Your task to perform on an android device: toggle notifications settings in the gmail app Image 0: 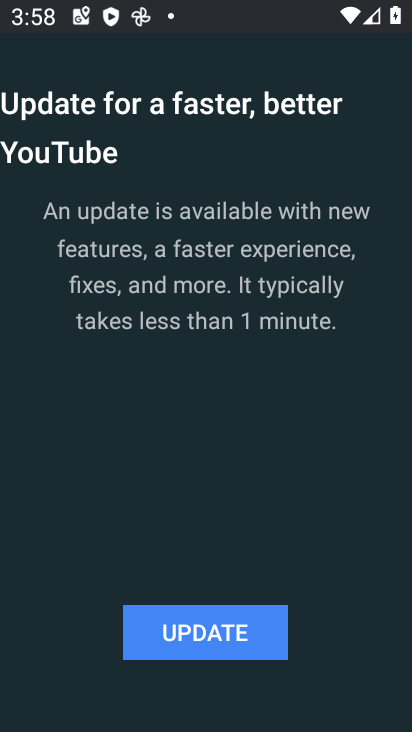
Step 0: press home button
Your task to perform on an android device: toggle notifications settings in the gmail app Image 1: 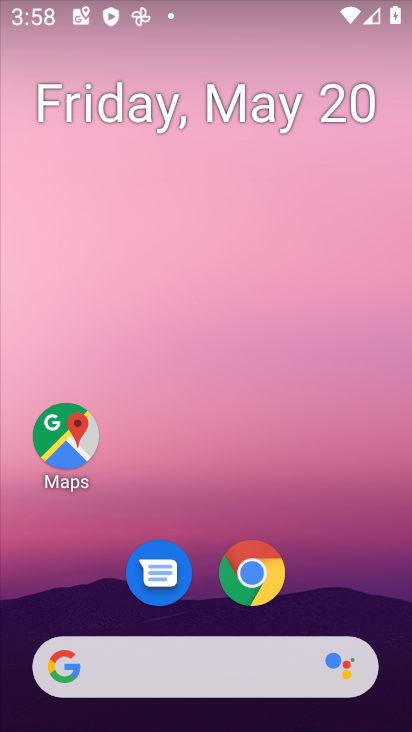
Step 1: drag from (391, 647) to (327, 253)
Your task to perform on an android device: toggle notifications settings in the gmail app Image 2: 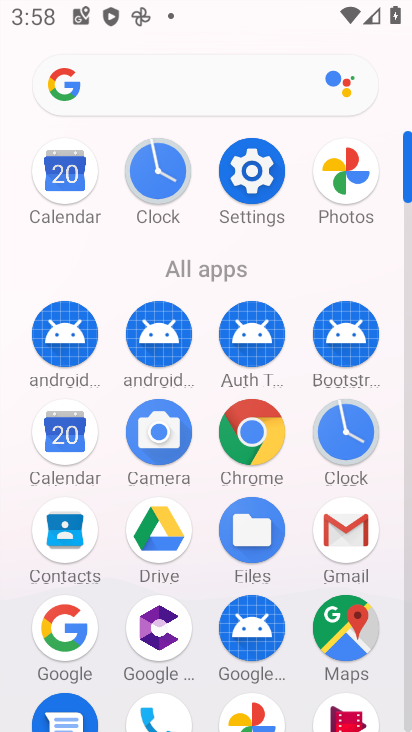
Step 2: click (345, 528)
Your task to perform on an android device: toggle notifications settings in the gmail app Image 3: 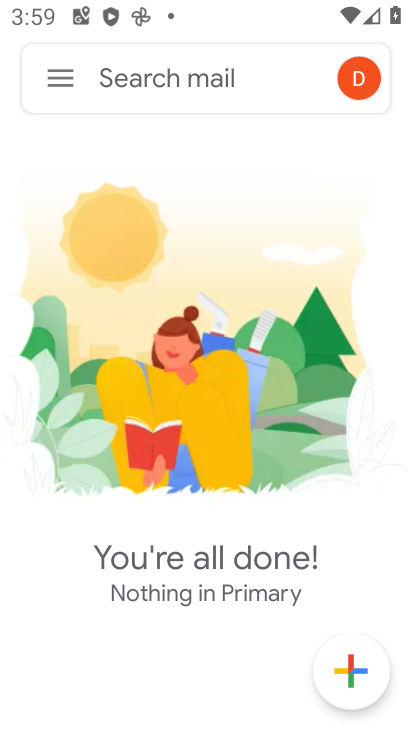
Step 3: click (58, 77)
Your task to perform on an android device: toggle notifications settings in the gmail app Image 4: 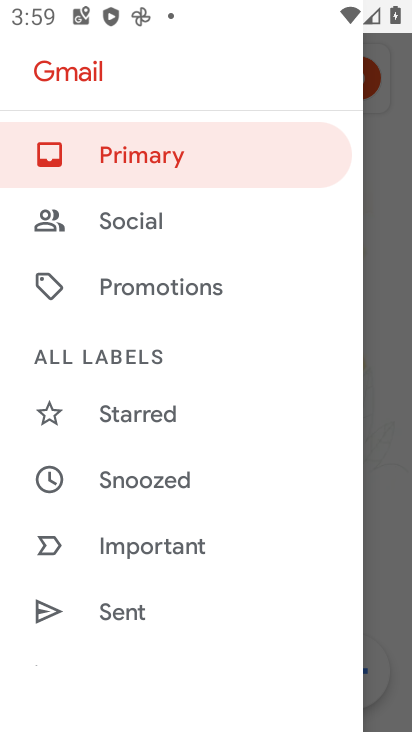
Step 4: drag from (235, 578) to (270, 168)
Your task to perform on an android device: toggle notifications settings in the gmail app Image 5: 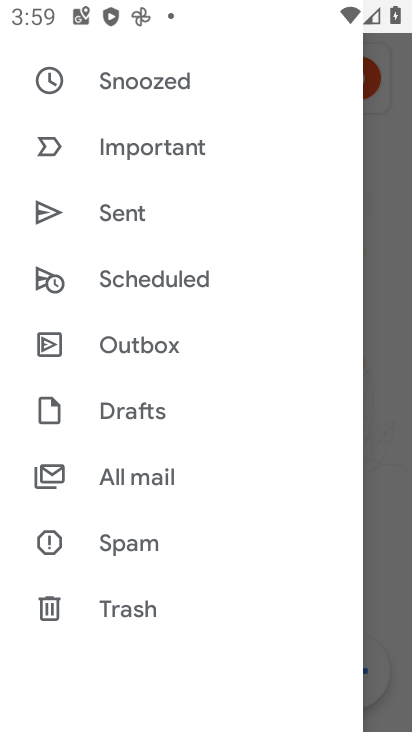
Step 5: drag from (202, 612) to (228, 219)
Your task to perform on an android device: toggle notifications settings in the gmail app Image 6: 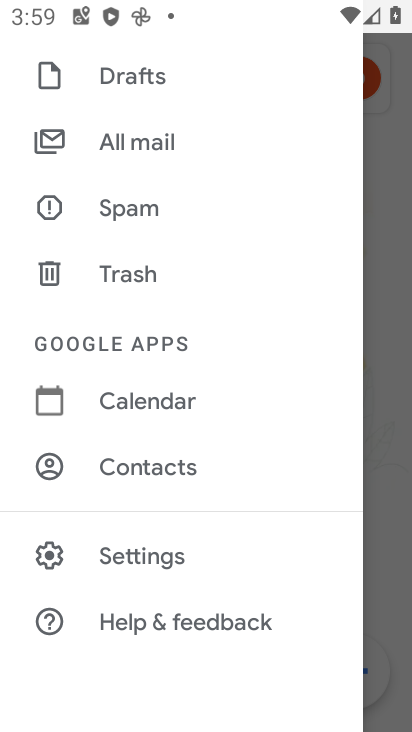
Step 6: click (156, 567)
Your task to perform on an android device: toggle notifications settings in the gmail app Image 7: 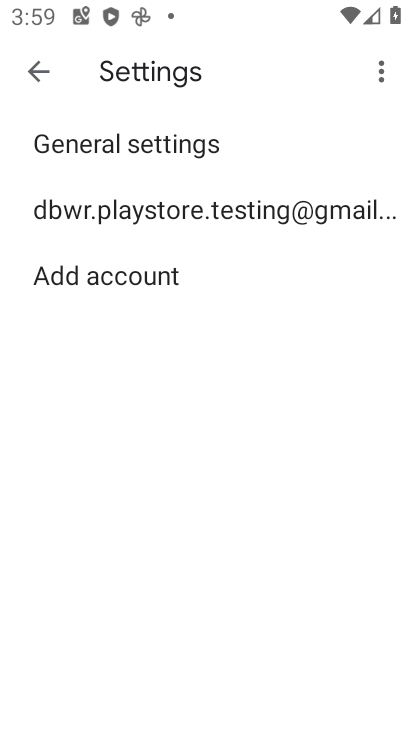
Step 7: click (185, 210)
Your task to perform on an android device: toggle notifications settings in the gmail app Image 8: 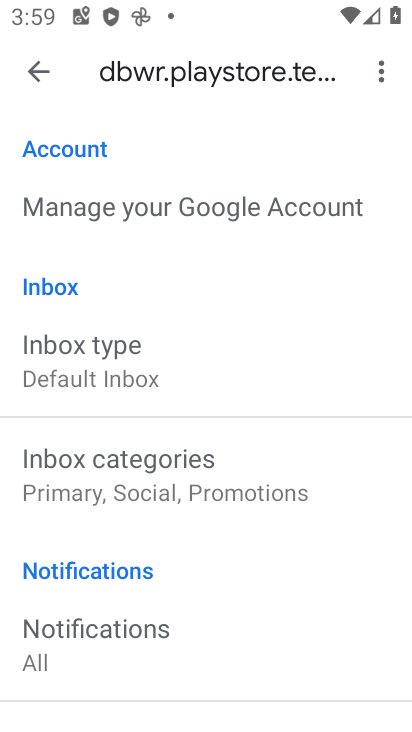
Step 8: drag from (221, 619) to (282, 143)
Your task to perform on an android device: toggle notifications settings in the gmail app Image 9: 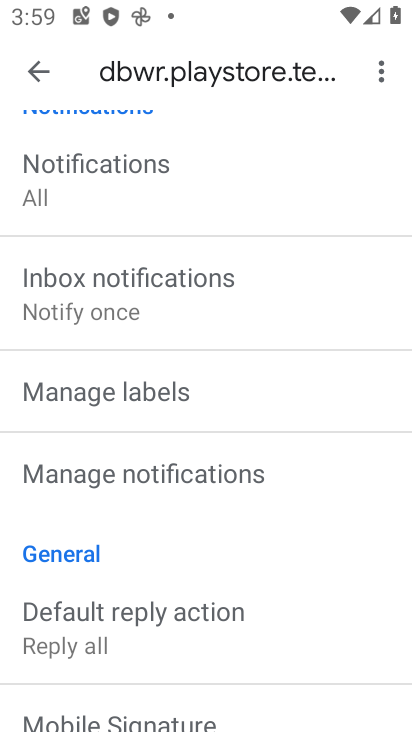
Step 9: click (138, 462)
Your task to perform on an android device: toggle notifications settings in the gmail app Image 10: 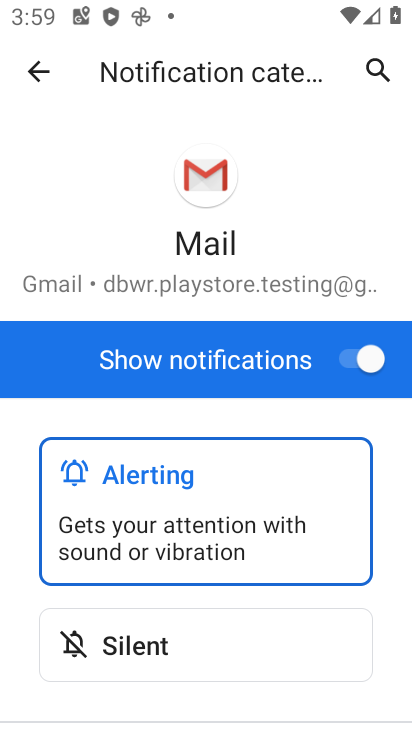
Step 10: click (350, 363)
Your task to perform on an android device: toggle notifications settings in the gmail app Image 11: 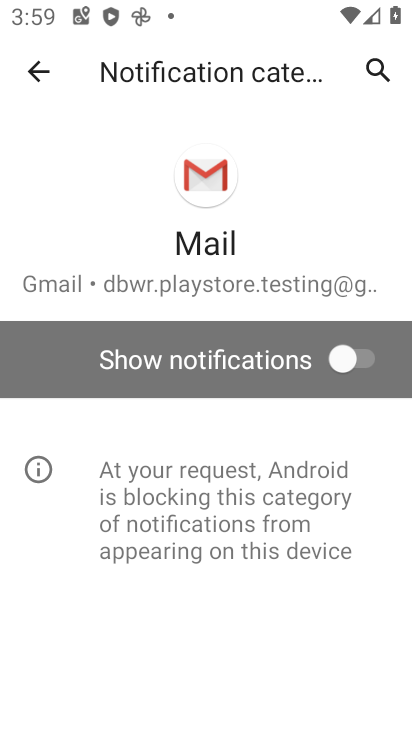
Step 11: task complete